Your task to perform on an android device: Go to internet settings Image 0: 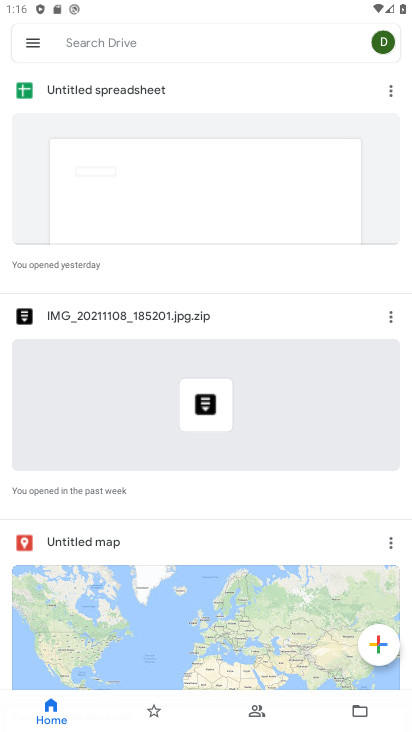
Step 0: press home button
Your task to perform on an android device: Go to internet settings Image 1: 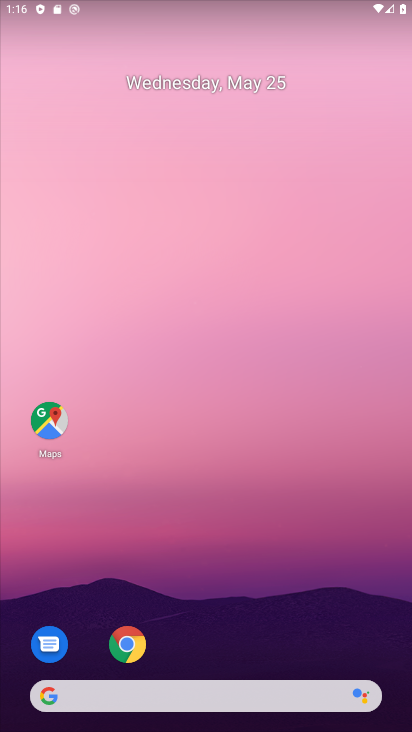
Step 1: drag from (226, 468) to (218, 0)
Your task to perform on an android device: Go to internet settings Image 2: 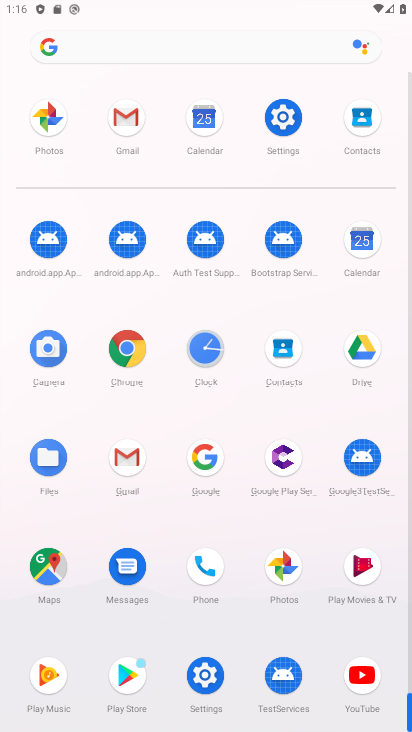
Step 2: click (281, 152)
Your task to perform on an android device: Go to internet settings Image 3: 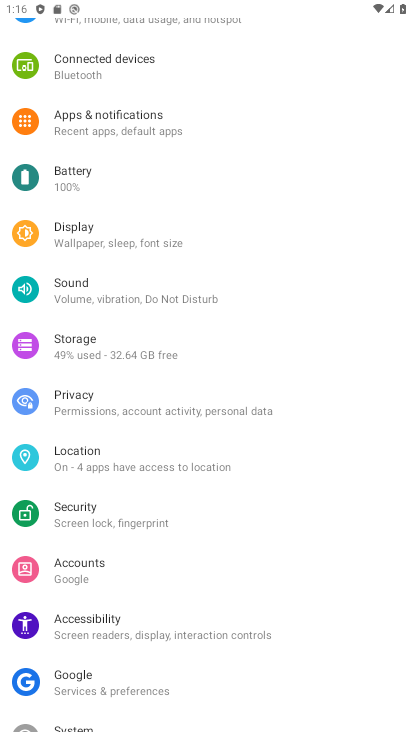
Step 3: drag from (171, 106) to (212, 597)
Your task to perform on an android device: Go to internet settings Image 4: 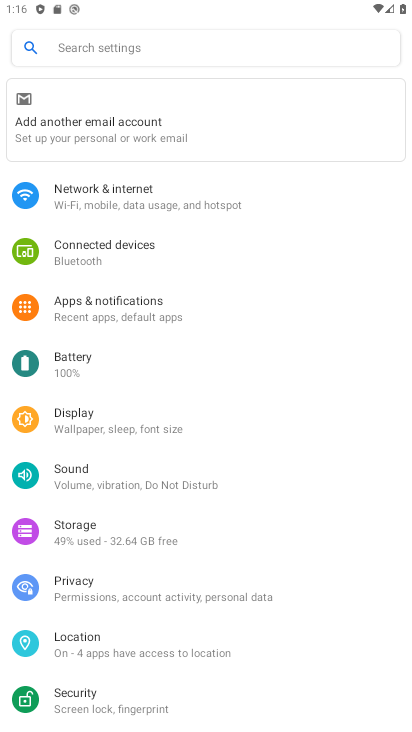
Step 4: click (108, 198)
Your task to perform on an android device: Go to internet settings Image 5: 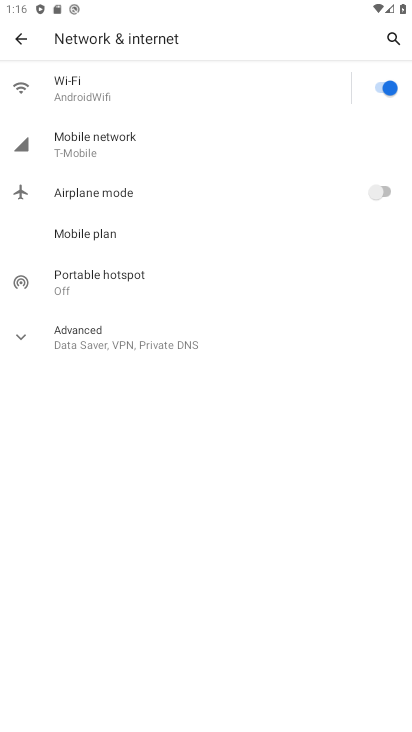
Step 5: task complete